Your task to perform on an android device: change notification settings in the gmail app Image 0: 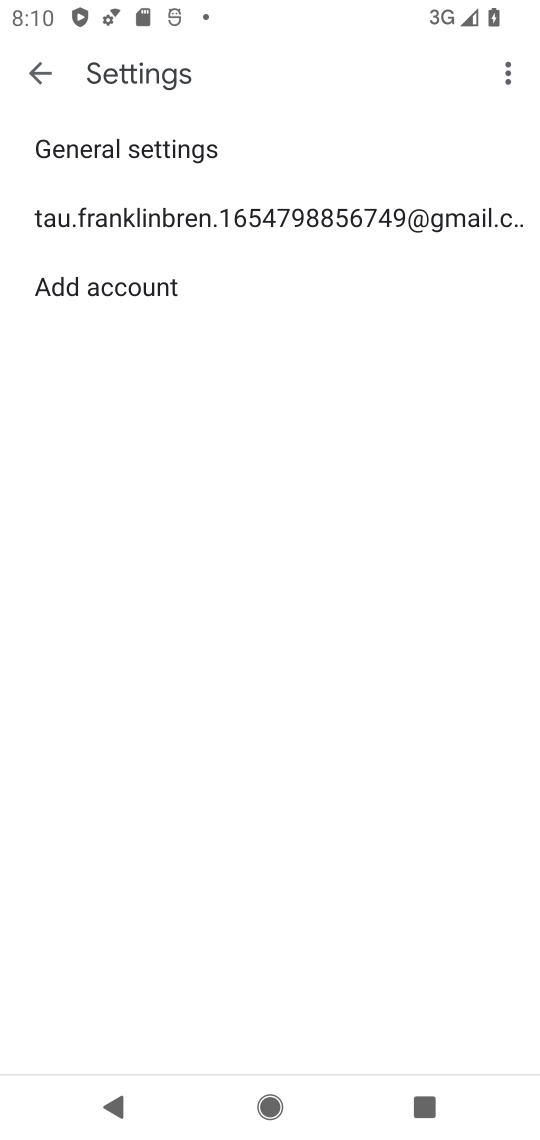
Step 0: press home button
Your task to perform on an android device: change notification settings in the gmail app Image 1: 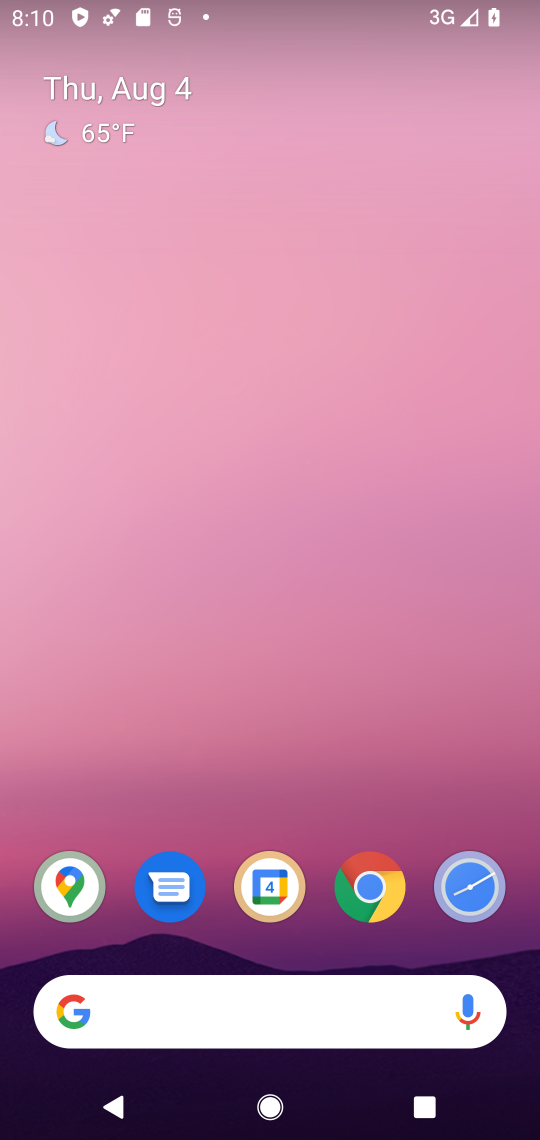
Step 1: drag from (194, 992) to (145, 415)
Your task to perform on an android device: change notification settings in the gmail app Image 2: 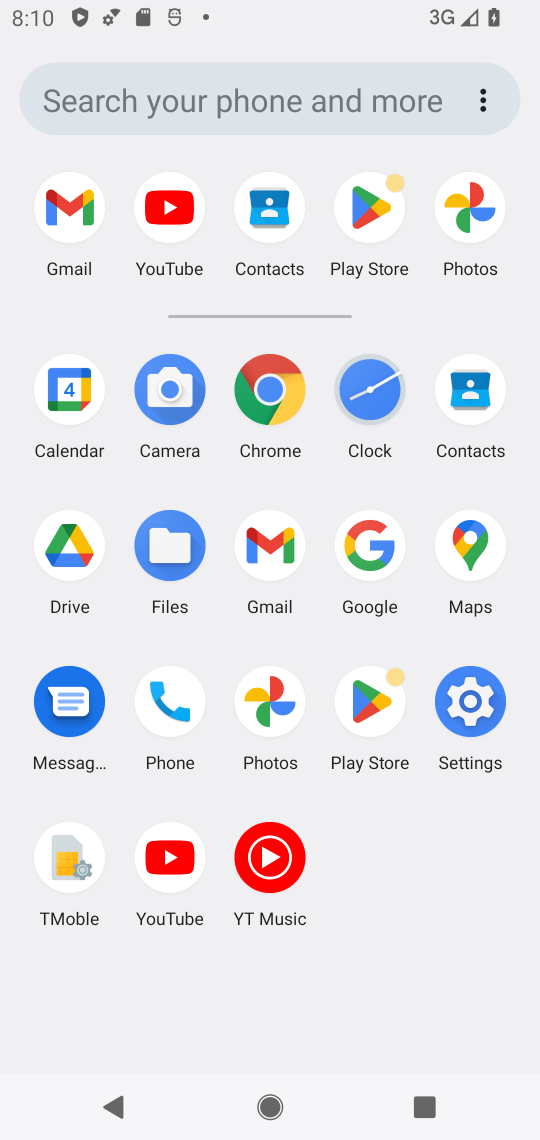
Step 2: click (276, 559)
Your task to perform on an android device: change notification settings in the gmail app Image 3: 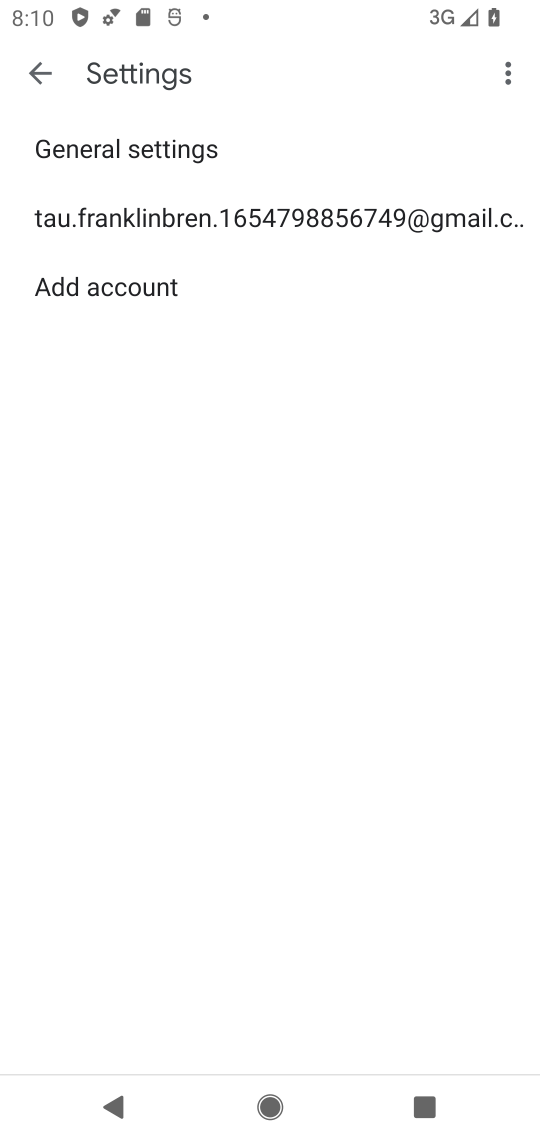
Step 3: drag from (139, 208) to (229, 208)
Your task to perform on an android device: change notification settings in the gmail app Image 4: 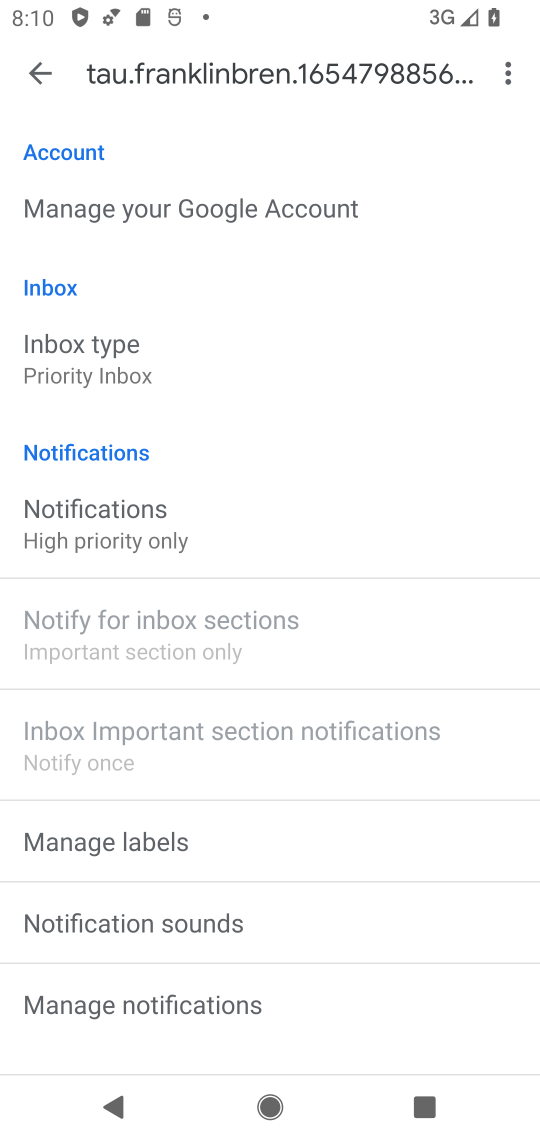
Step 4: click (111, 512)
Your task to perform on an android device: change notification settings in the gmail app Image 5: 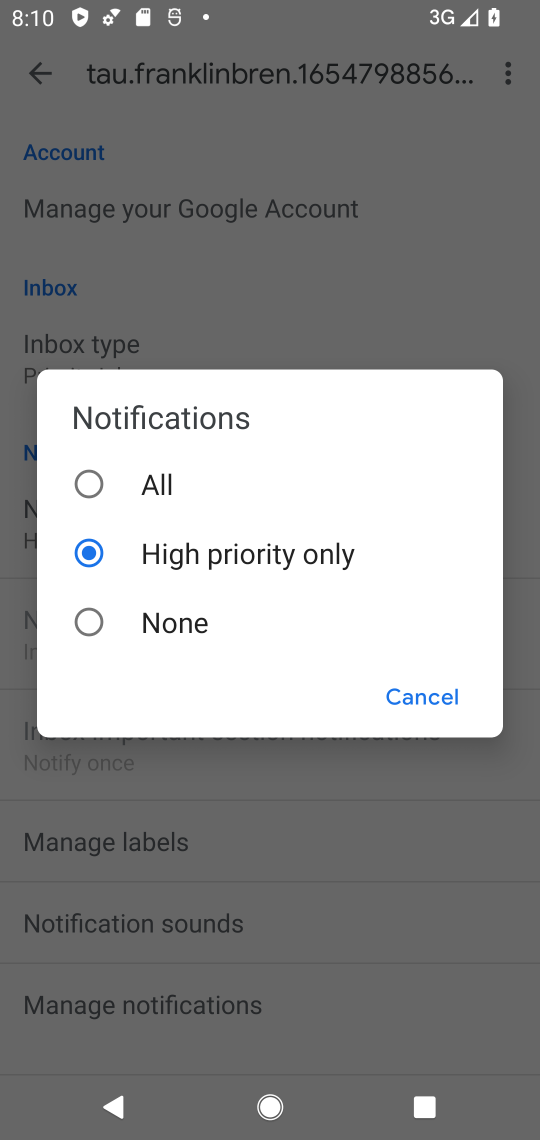
Step 5: click (112, 488)
Your task to perform on an android device: change notification settings in the gmail app Image 6: 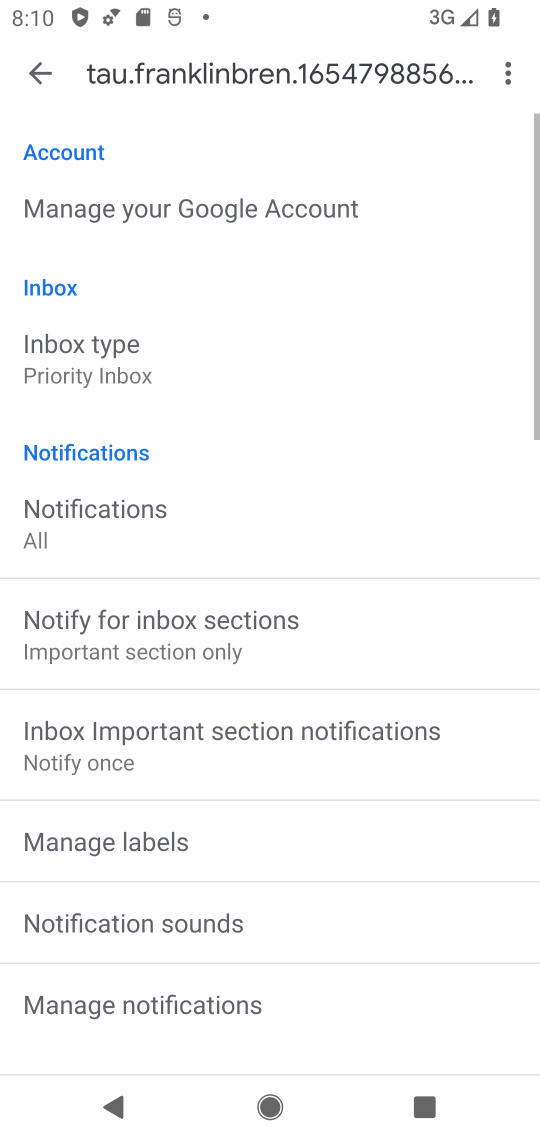
Step 6: task complete